Your task to perform on an android device: install app "DuckDuckGo Privacy Browser" Image 0: 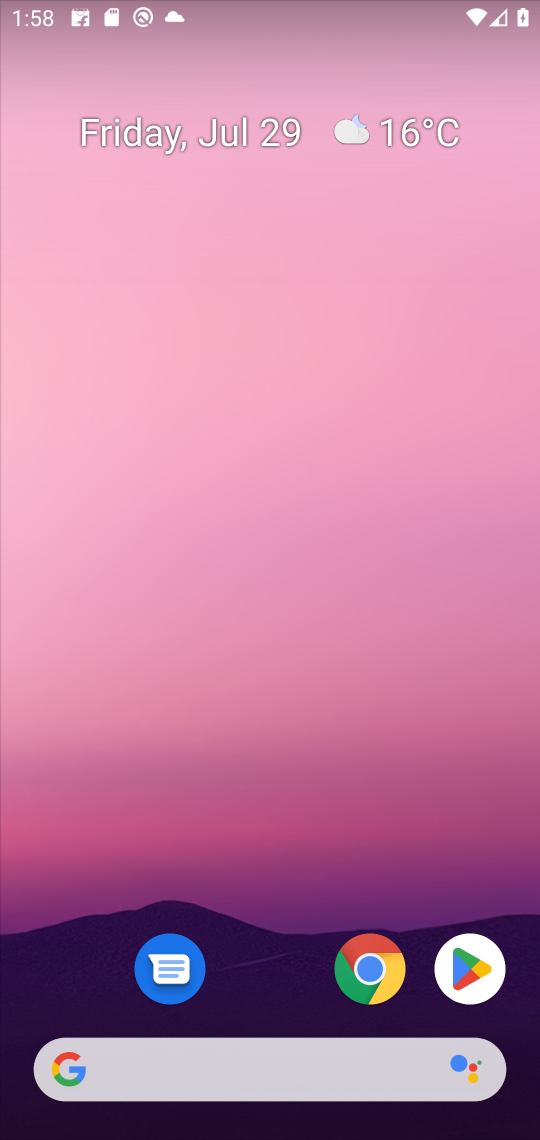
Step 0: press home button
Your task to perform on an android device: install app "DuckDuckGo Privacy Browser" Image 1: 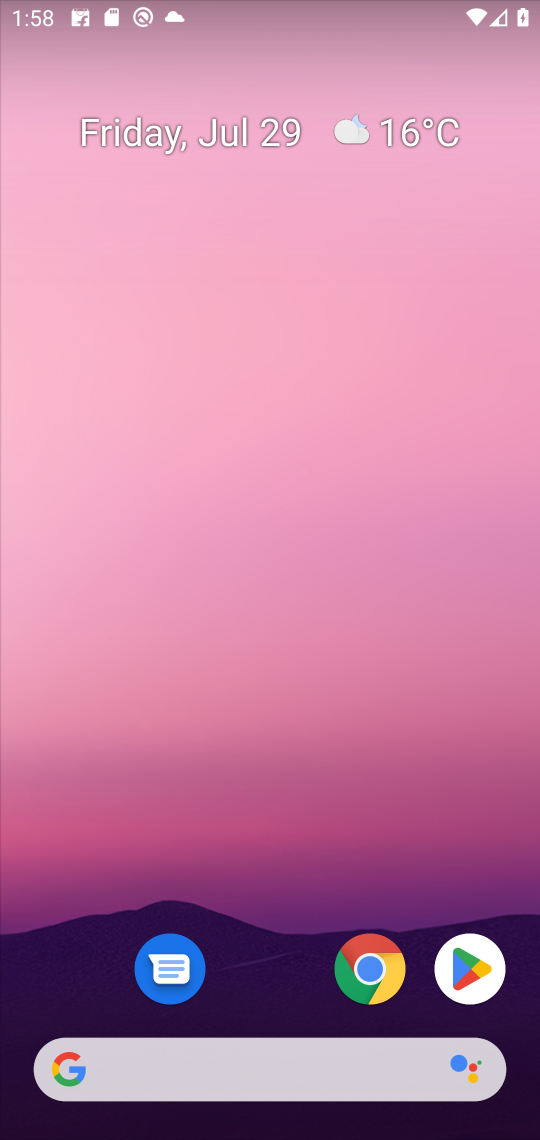
Step 1: click (469, 953)
Your task to perform on an android device: install app "DuckDuckGo Privacy Browser" Image 2: 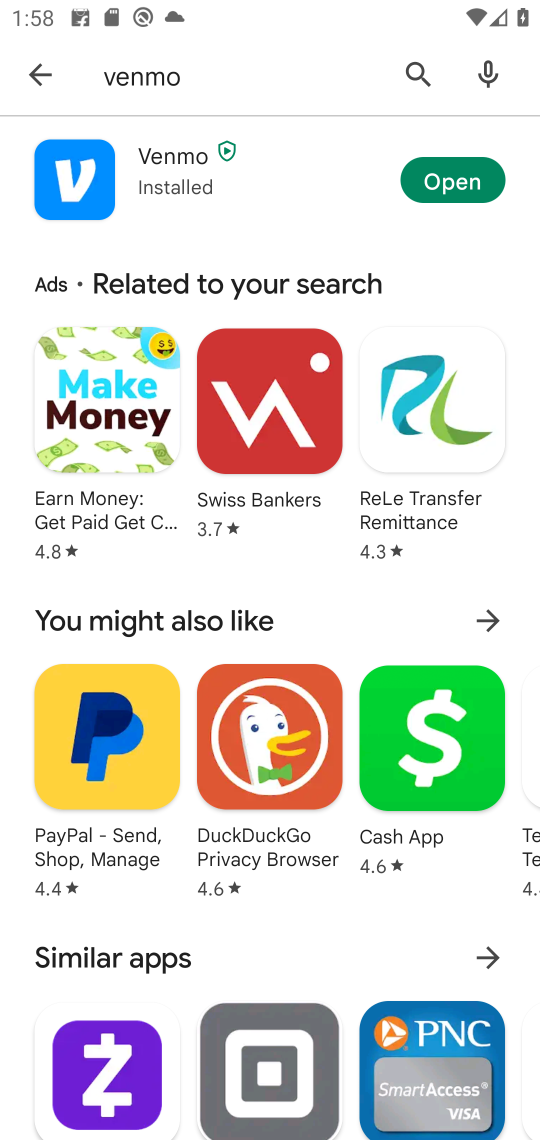
Step 2: click (410, 66)
Your task to perform on an android device: install app "DuckDuckGo Privacy Browser" Image 3: 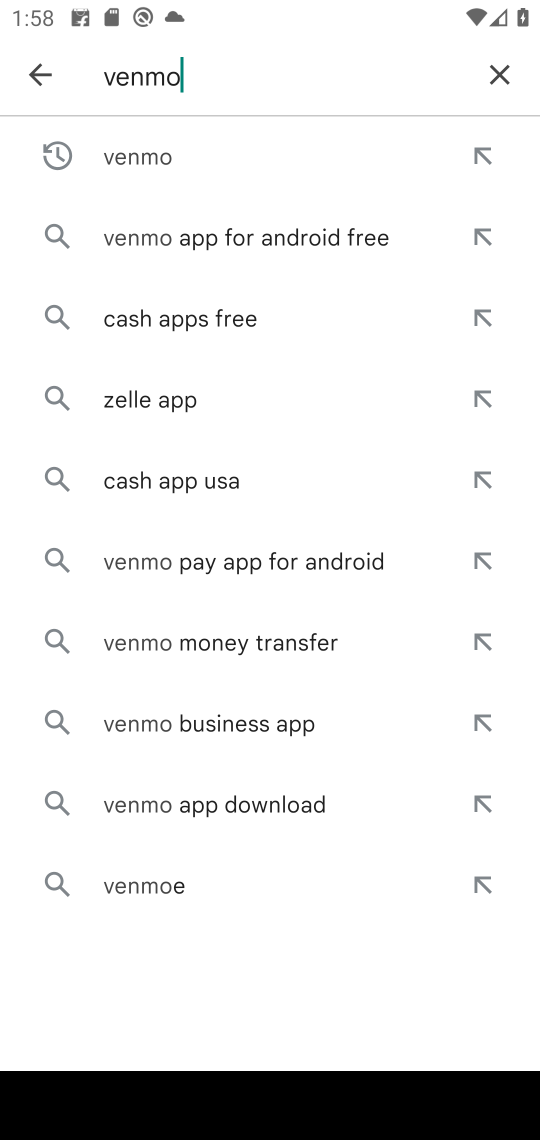
Step 3: click (494, 74)
Your task to perform on an android device: install app "DuckDuckGo Privacy Browser" Image 4: 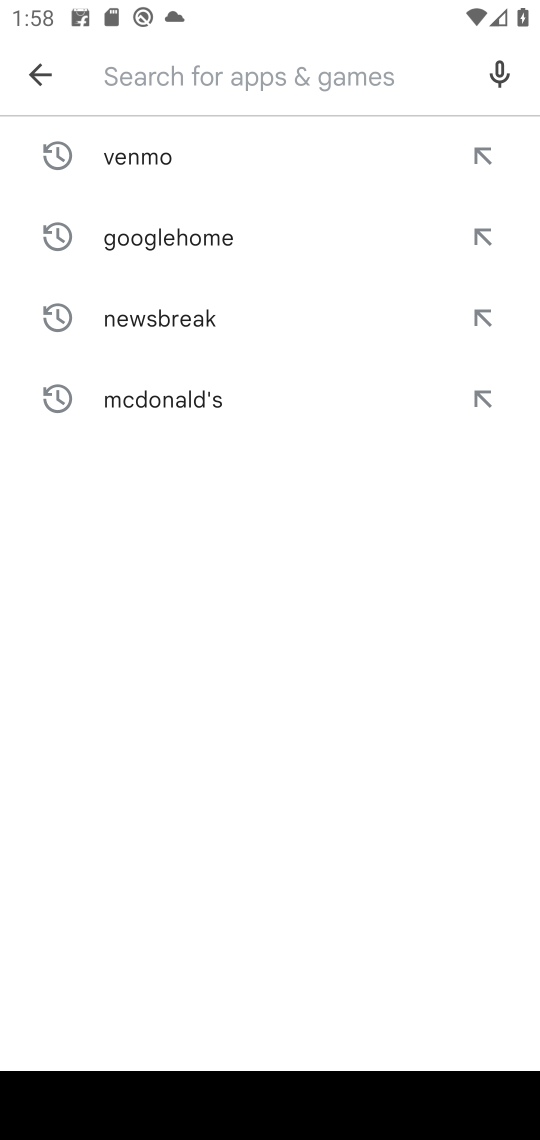
Step 4: type "duckduckgo"
Your task to perform on an android device: install app "DuckDuckGo Privacy Browser" Image 5: 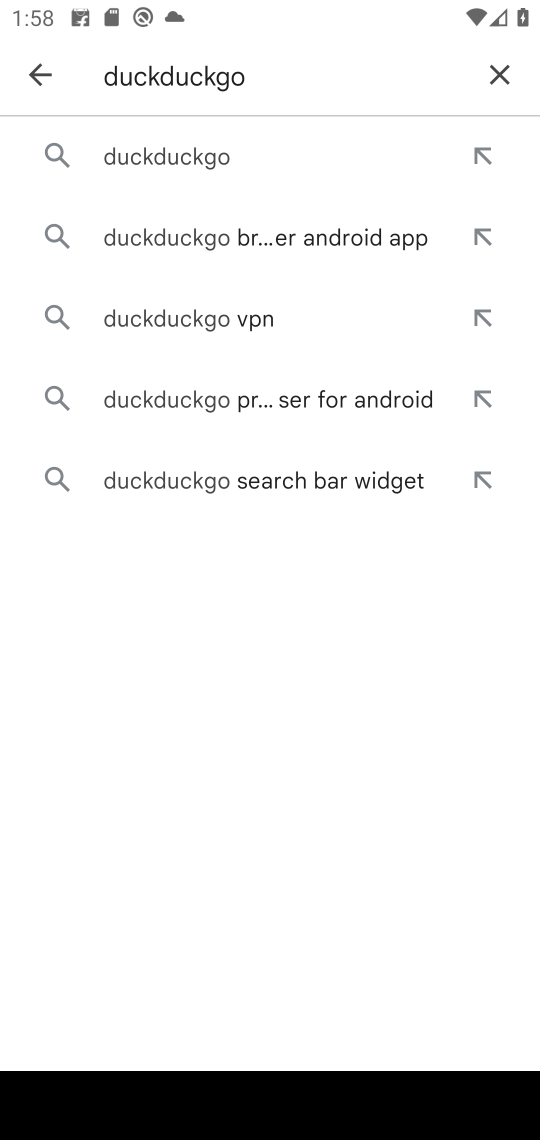
Step 5: click (171, 160)
Your task to perform on an android device: install app "DuckDuckGo Privacy Browser" Image 6: 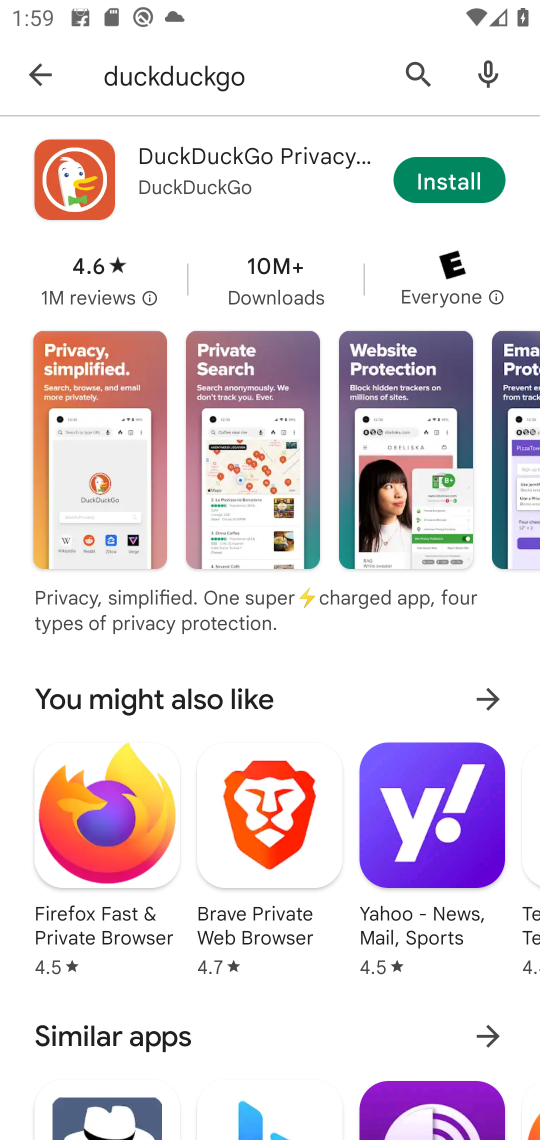
Step 6: click (446, 175)
Your task to perform on an android device: install app "DuckDuckGo Privacy Browser" Image 7: 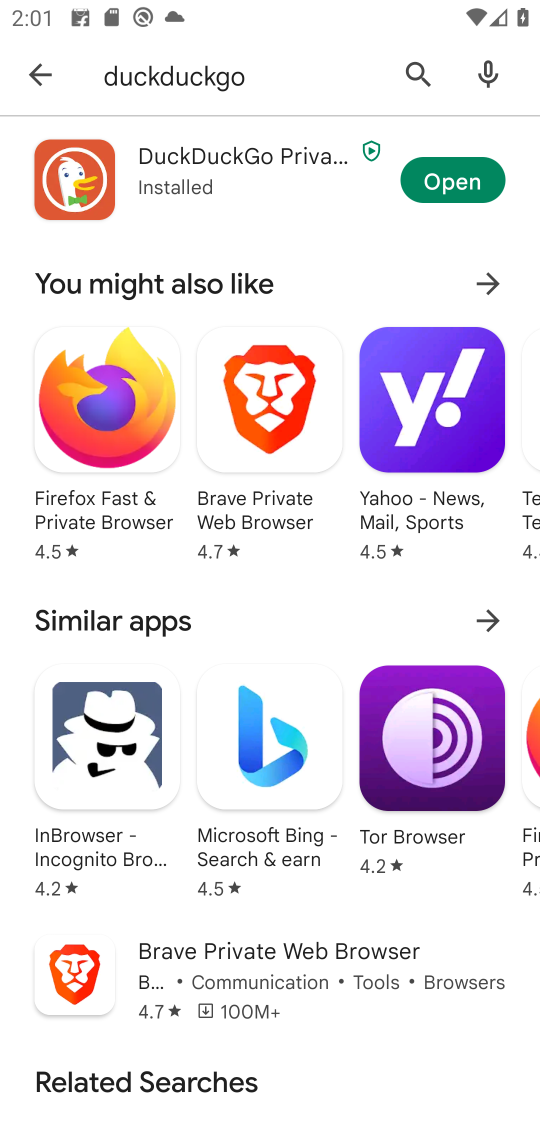
Step 7: task complete